Your task to perform on an android device: uninstall "Messages" Image 0: 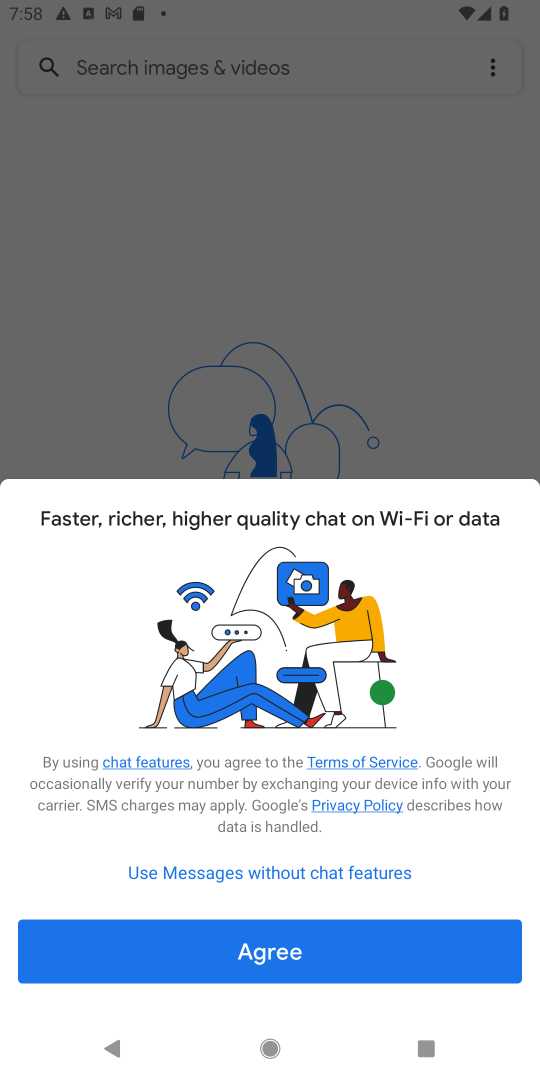
Step 0: press home button
Your task to perform on an android device: uninstall "Messages" Image 1: 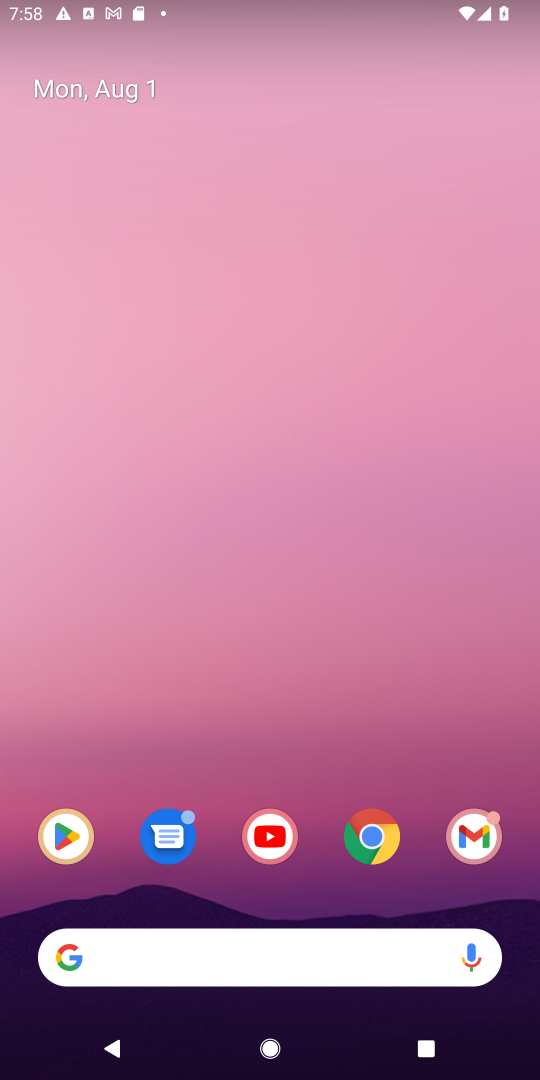
Step 1: click (62, 831)
Your task to perform on an android device: uninstall "Messages" Image 2: 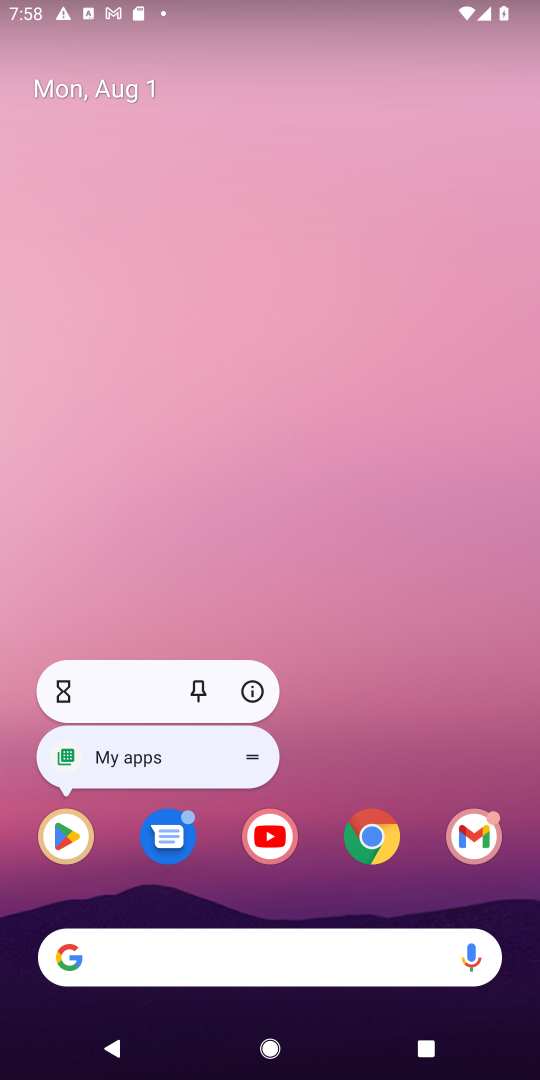
Step 2: click (62, 838)
Your task to perform on an android device: uninstall "Messages" Image 3: 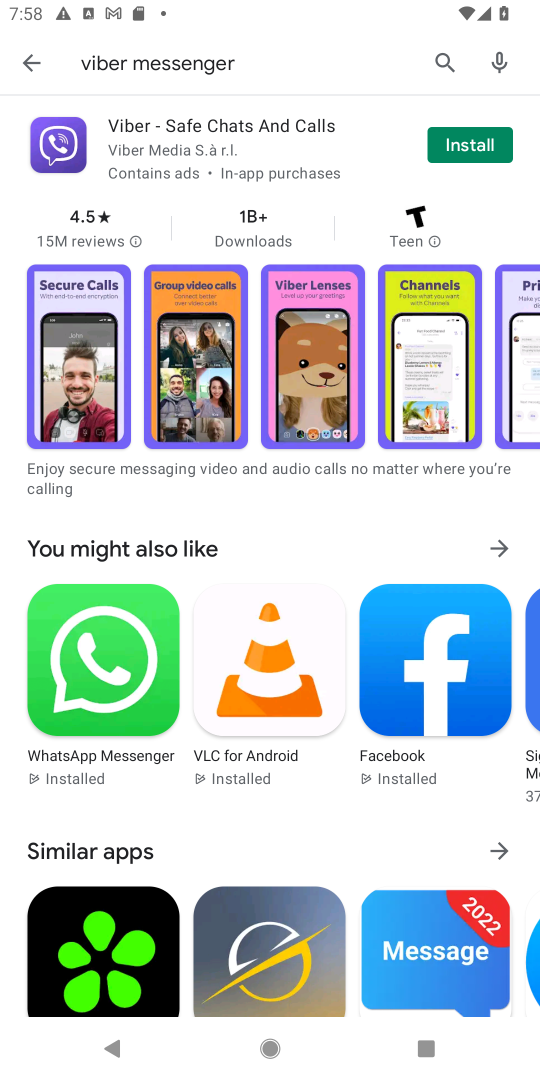
Step 3: click (436, 59)
Your task to perform on an android device: uninstall "Messages" Image 4: 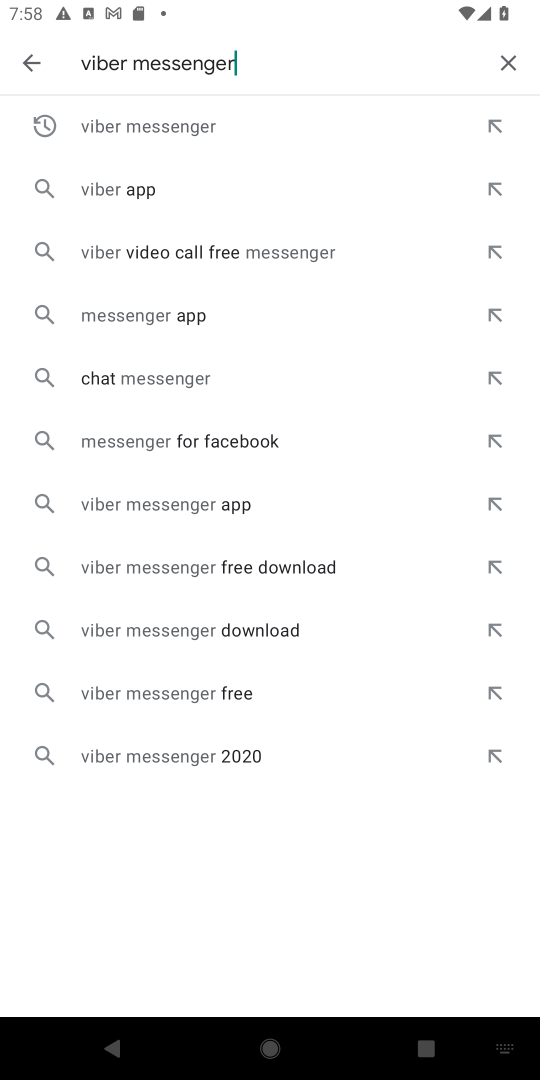
Step 4: click (502, 52)
Your task to perform on an android device: uninstall "Messages" Image 5: 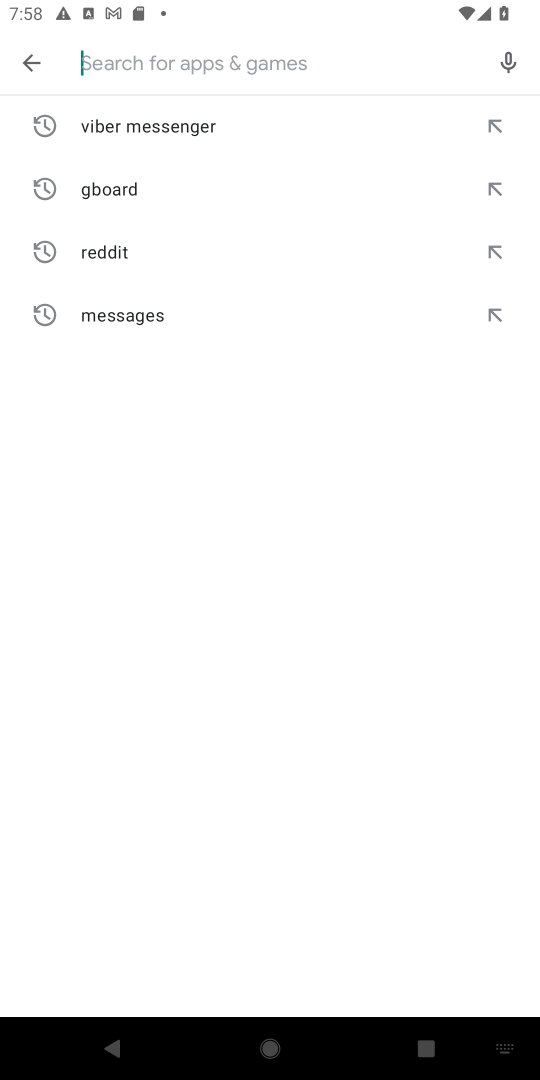
Step 5: type "Messages"
Your task to perform on an android device: uninstall "Messages" Image 6: 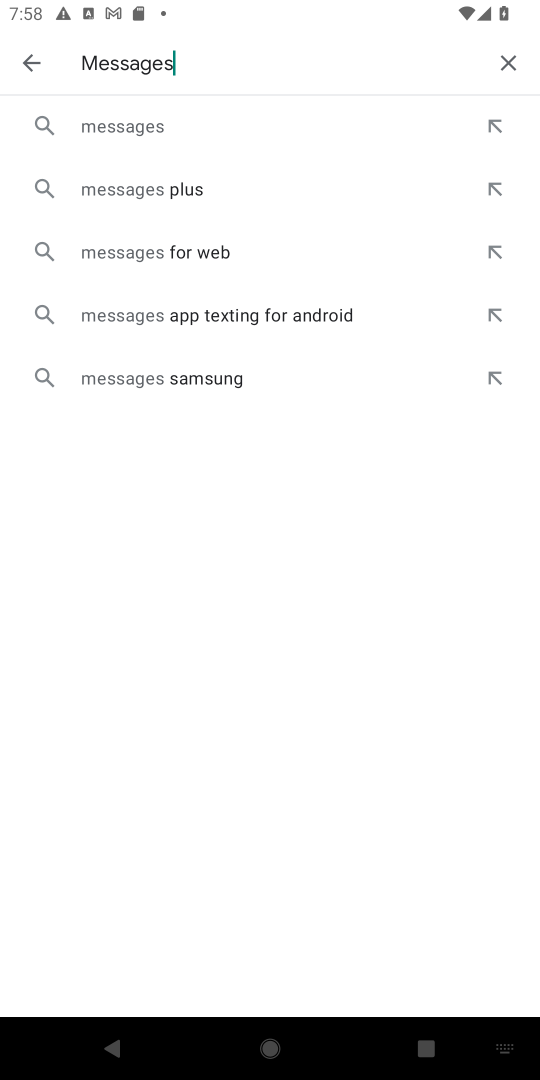
Step 6: click (174, 129)
Your task to perform on an android device: uninstall "Messages" Image 7: 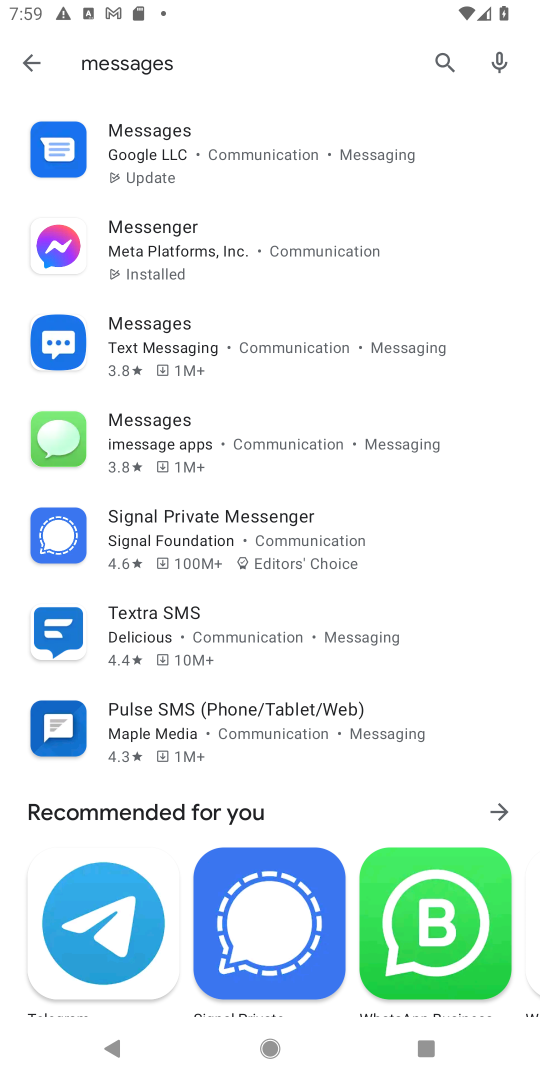
Step 7: click (255, 155)
Your task to perform on an android device: uninstall "Messages" Image 8: 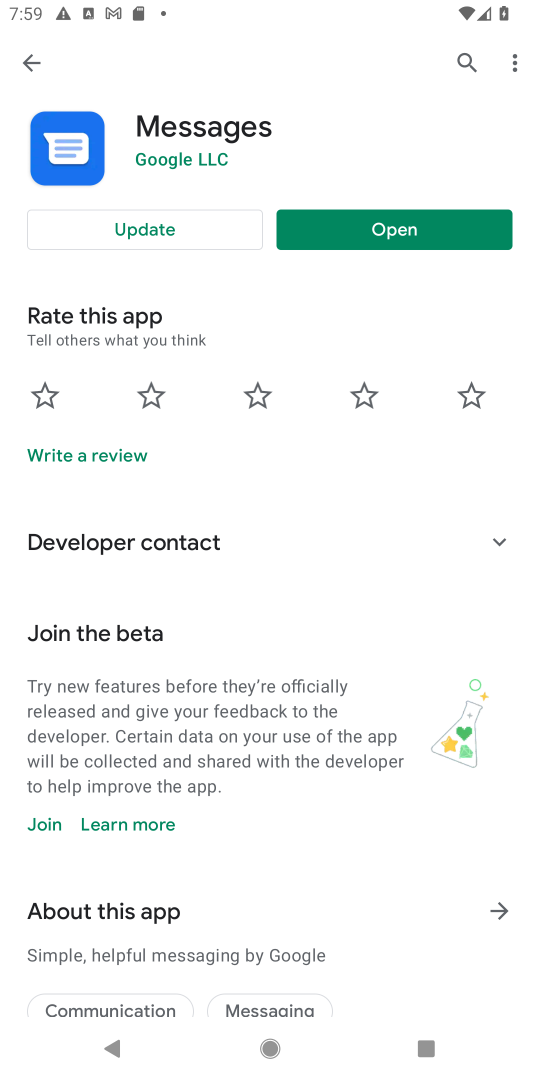
Step 8: task complete